Your task to perform on an android device: Show me popular videos on Youtube Image 0: 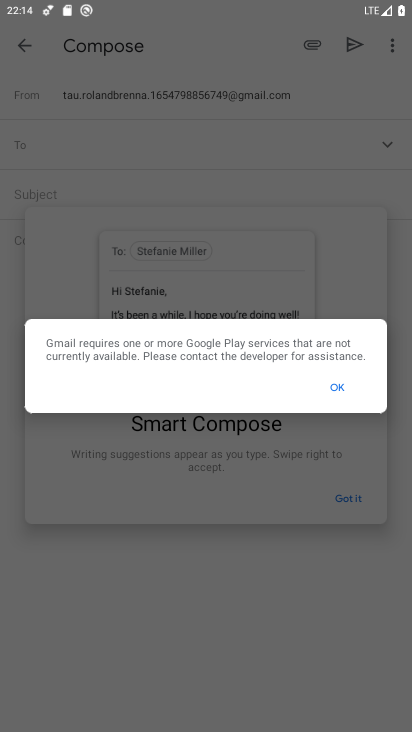
Step 0: press home button
Your task to perform on an android device: Show me popular videos on Youtube Image 1: 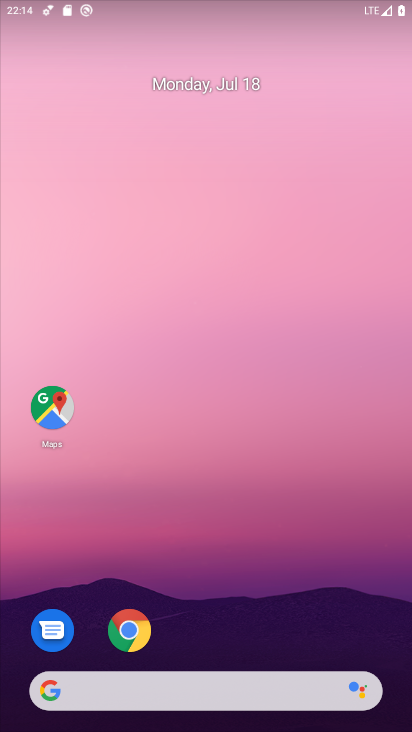
Step 1: drag from (279, 625) to (288, 193)
Your task to perform on an android device: Show me popular videos on Youtube Image 2: 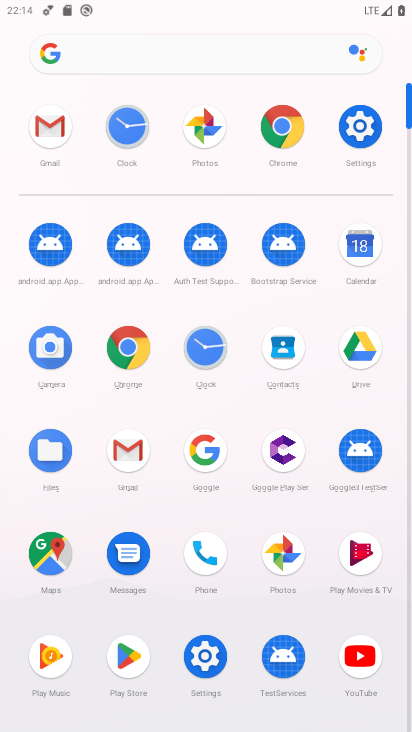
Step 2: click (354, 648)
Your task to perform on an android device: Show me popular videos on Youtube Image 3: 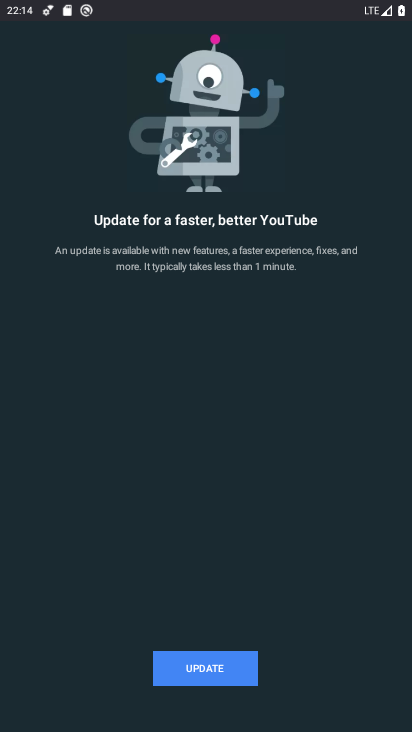
Step 3: task complete